Your task to perform on an android device: change text size in settings app Image 0: 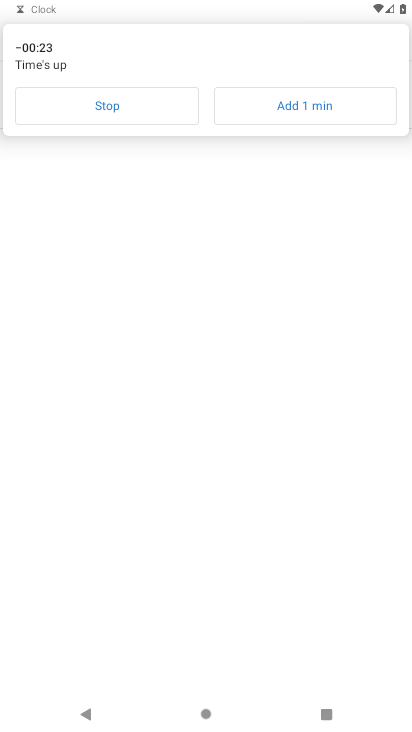
Step 0: press home button
Your task to perform on an android device: change text size in settings app Image 1: 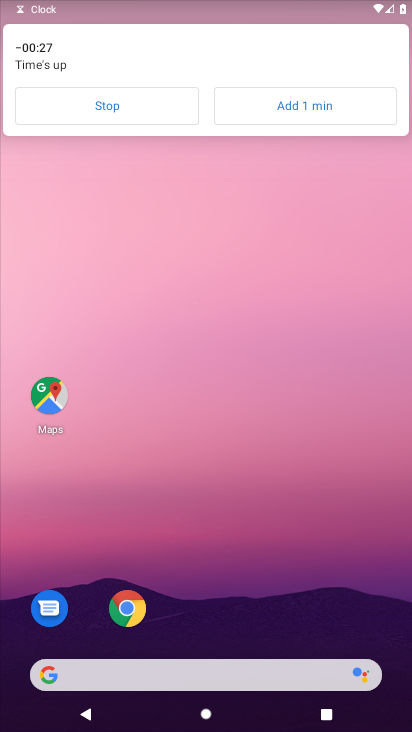
Step 1: click (122, 110)
Your task to perform on an android device: change text size in settings app Image 2: 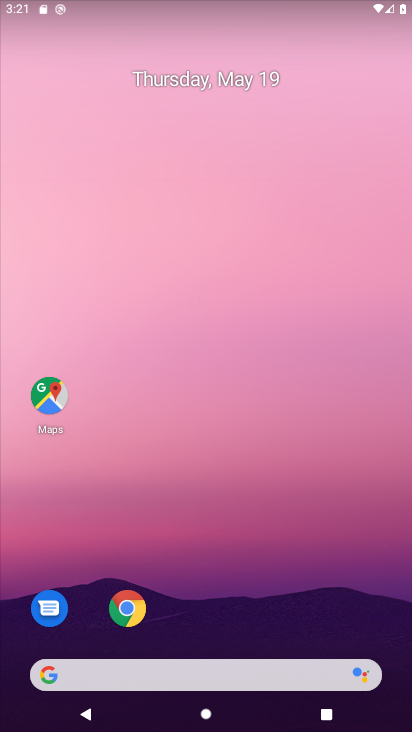
Step 2: drag from (210, 665) to (208, 173)
Your task to perform on an android device: change text size in settings app Image 3: 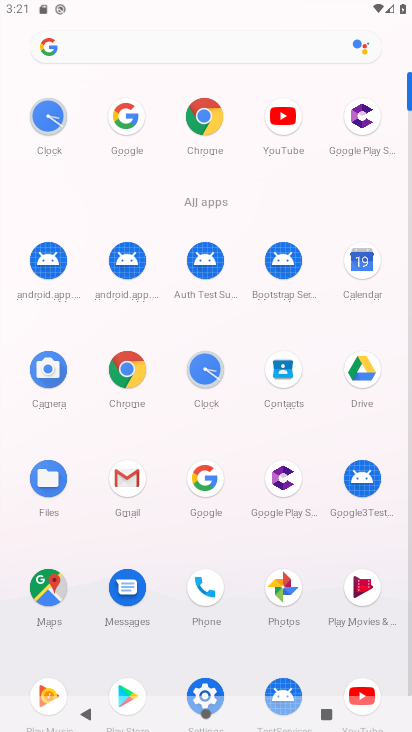
Step 3: click (200, 695)
Your task to perform on an android device: change text size in settings app Image 4: 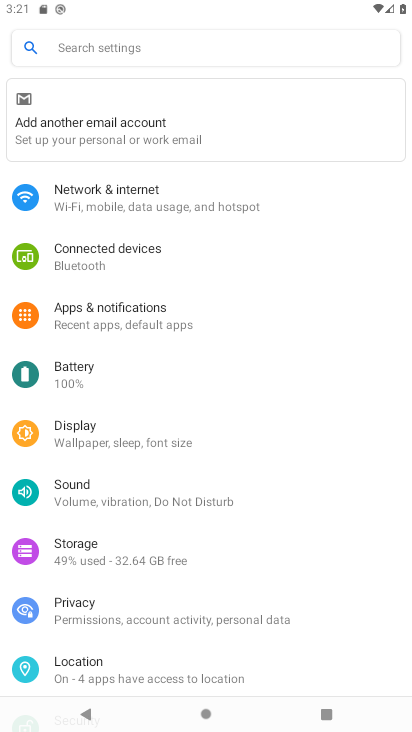
Step 4: drag from (150, 626) to (127, 320)
Your task to perform on an android device: change text size in settings app Image 5: 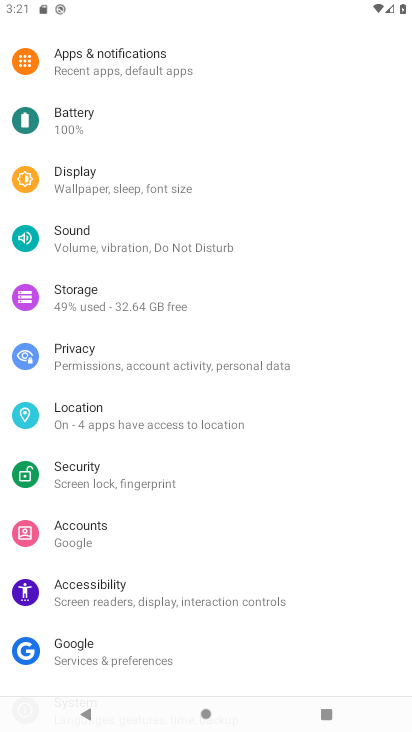
Step 5: drag from (124, 660) to (168, 353)
Your task to perform on an android device: change text size in settings app Image 6: 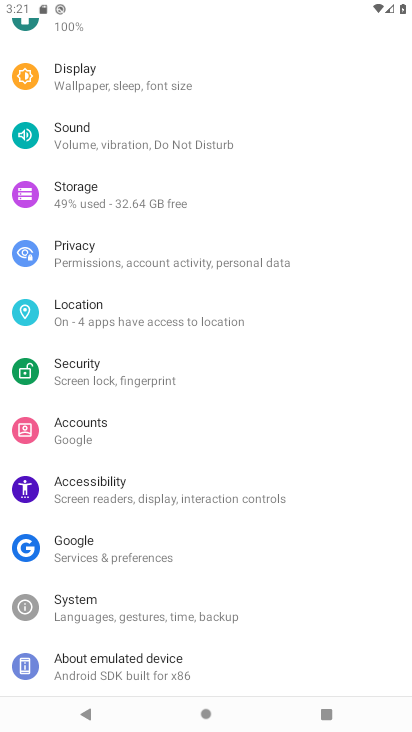
Step 6: drag from (123, 664) to (161, 373)
Your task to perform on an android device: change text size in settings app Image 7: 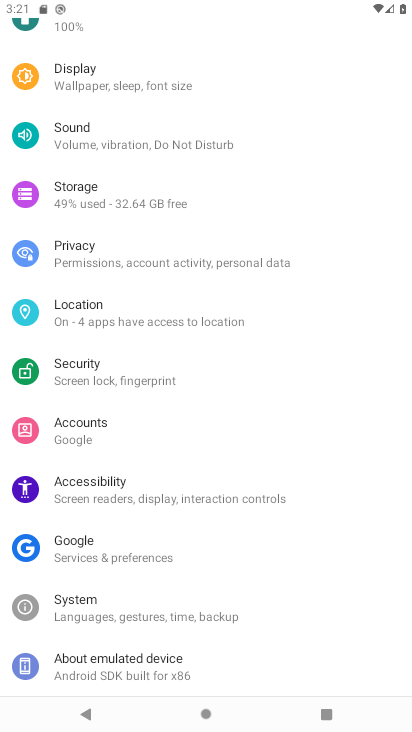
Step 7: click (91, 490)
Your task to perform on an android device: change text size in settings app Image 8: 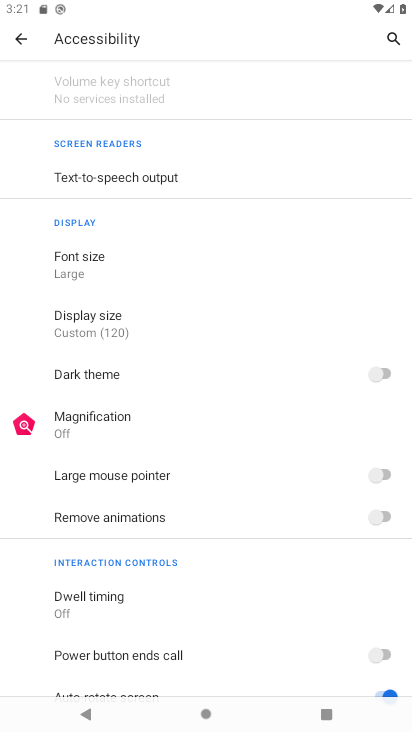
Step 8: click (113, 263)
Your task to perform on an android device: change text size in settings app Image 9: 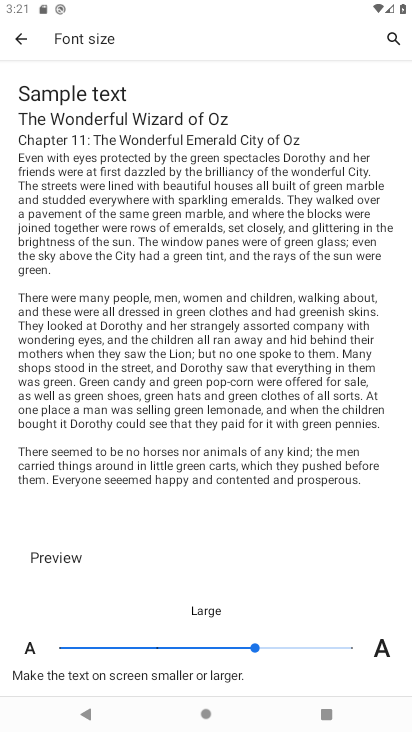
Step 9: task complete